Your task to perform on an android device: empty trash in the gmail app Image 0: 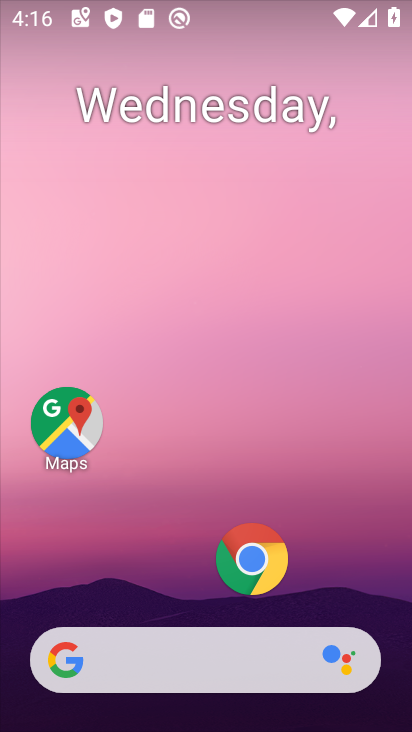
Step 0: drag from (150, 578) to (184, 266)
Your task to perform on an android device: empty trash in the gmail app Image 1: 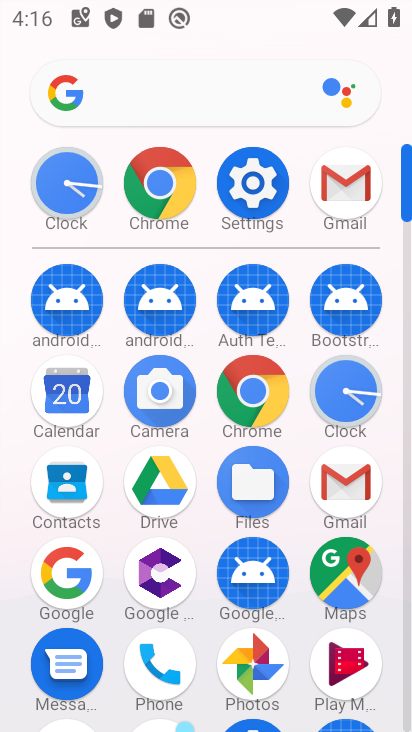
Step 1: click (345, 472)
Your task to perform on an android device: empty trash in the gmail app Image 2: 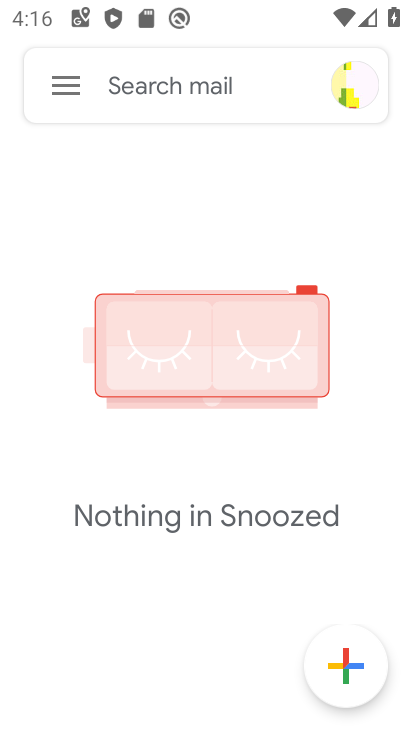
Step 2: click (40, 84)
Your task to perform on an android device: empty trash in the gmail app Image 3: 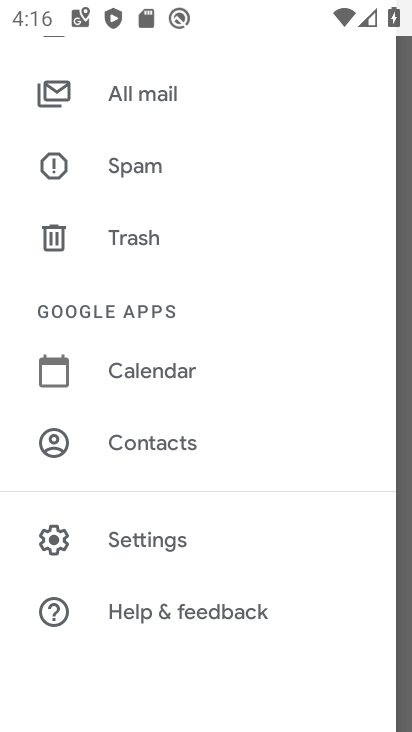
Step 3: click (139, 231)
Your task to perform on an android device: empty trash in the gmail app Image 4: 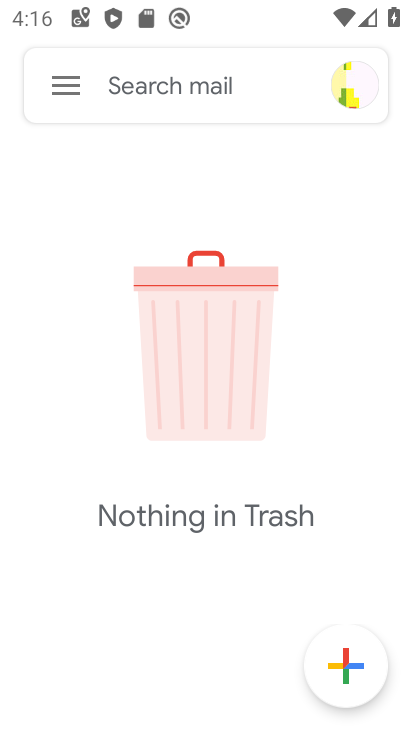
Step 4: task complete